Your task to perform on an android device: change your default location settings in chrome Image 0: 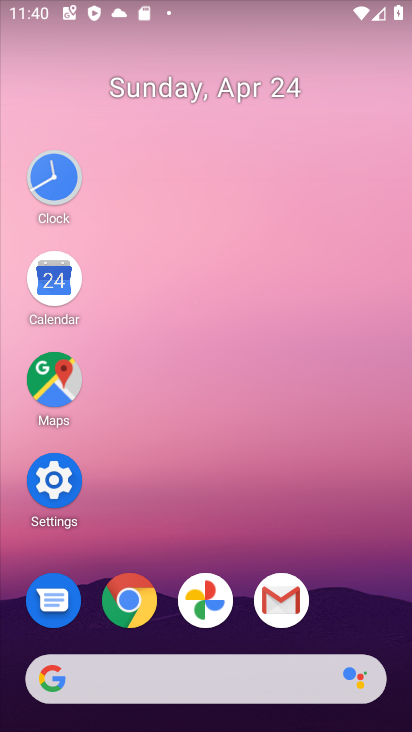
Step 0: click (123, 607)
Your task to perform on an android device: change your default location settings in chrome Image 1: 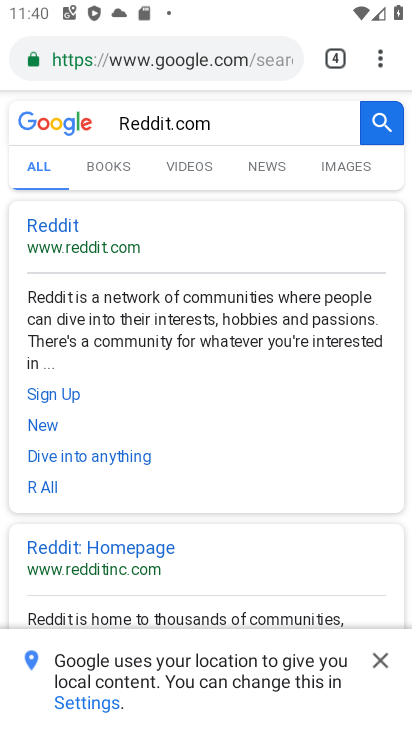
Step 1: click (377, 62)
Your task to perform on an android device: change your default location settings in chrome Image 2: 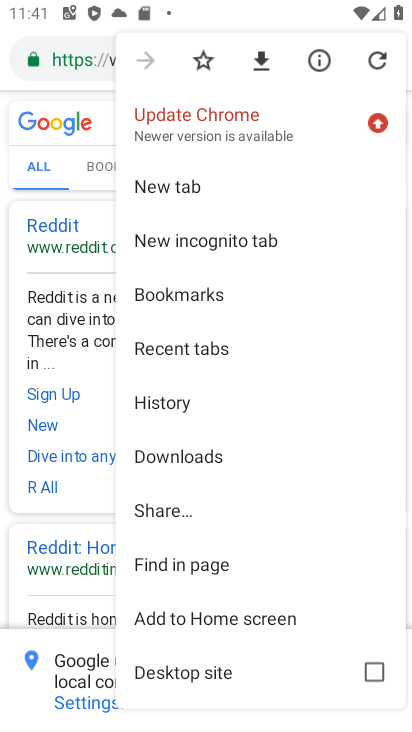
Step 2: drag from (261, 528) to (178, 114)
Your task to perform on an android device: change your default location settings in chrome Image 3: 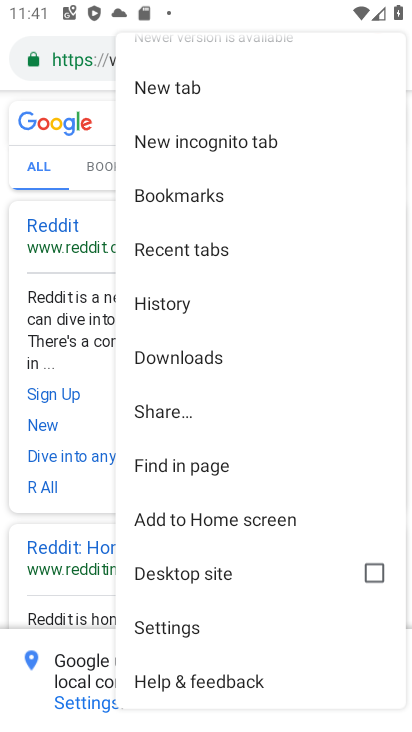
Step 3: click (180, 621)
Your task to perform on an android device: change your default location settings in chrome Image 4: 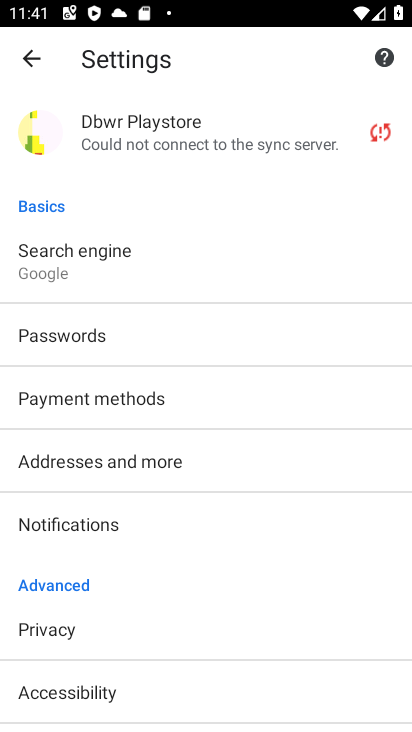
Step 4: drag from (183, 549) to (163, 180)
Your task to perform on an android device: change your default location settings in chrome Image 5: 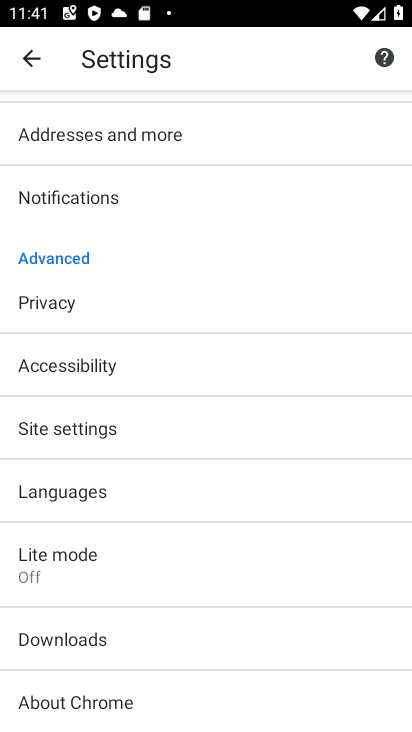
Step 5: click (72, 426)
Your task to perform on an android device: change your default location settings in chrome Image 6: 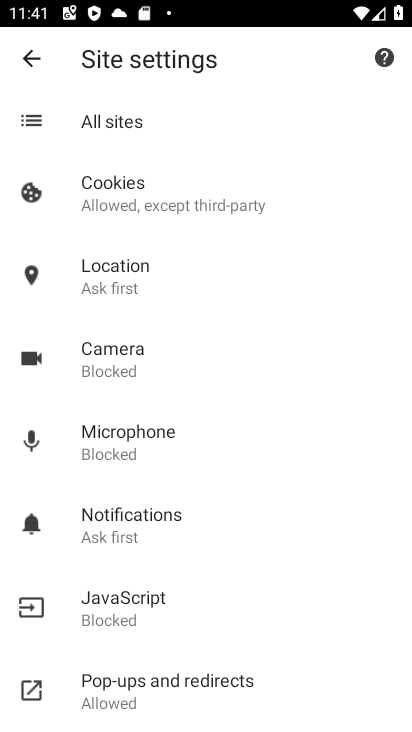
Step 6: click (126, 266)
Your task to perform on an android device: change your default location settings in chrome Image 7: 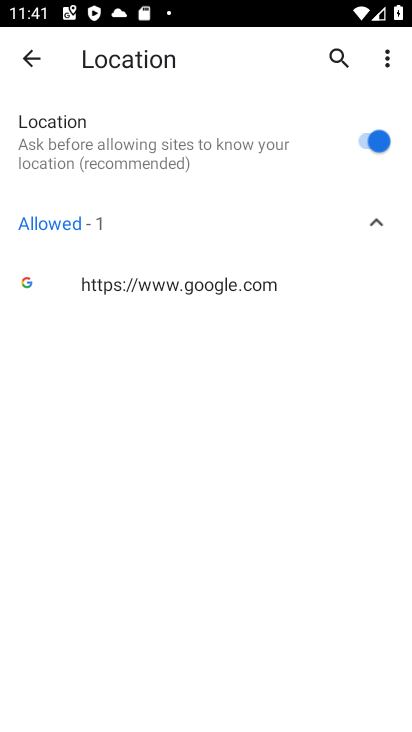
Step 7: click (380, 144)
Your task to perform on an android device: change your default location settings in chrome Image 8: 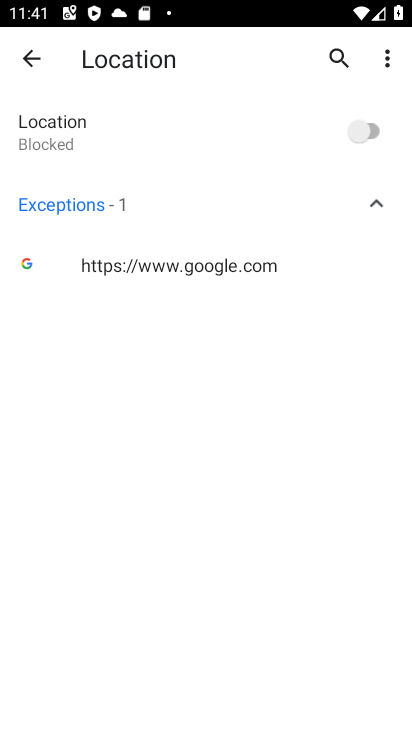
Step 8: task complete